Your task to perform on an android device: toggle sleep mode Image 0: 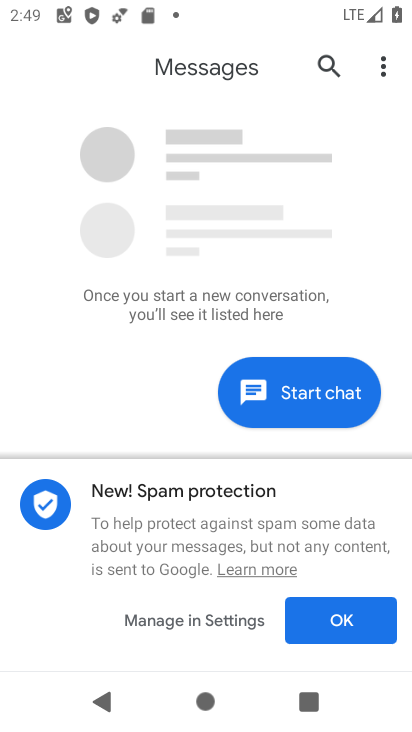
Step 0: press home button
Your task to perform on an android device: toggle sleep mode Image 1: 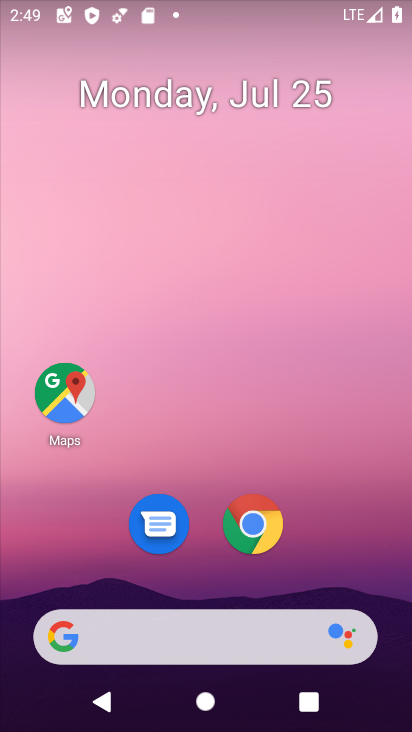
Step 1: drag from (334, 565) to (311, 16)
Your task to perform on an android device: toggle sleep mode Image 2: 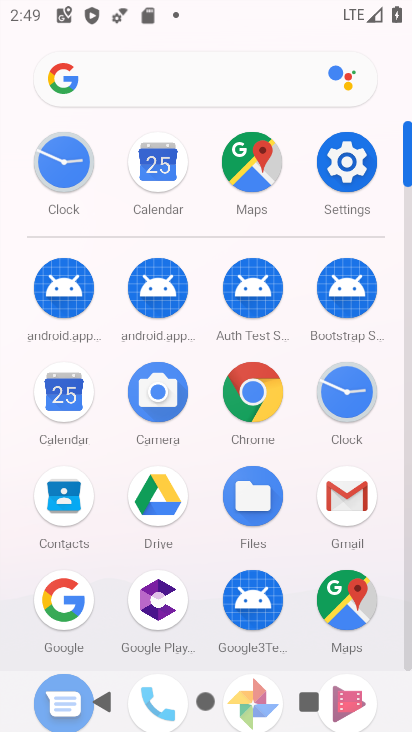
Step 2: click (351, 163)
Your task to perform on an android device: toggle sleep mode Image 3: 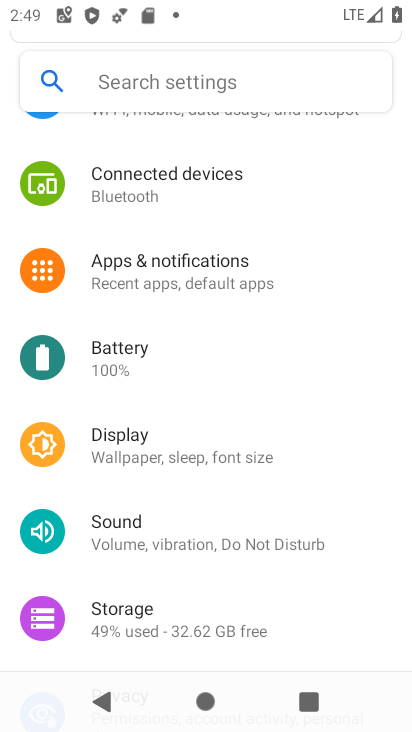
Step 3: click (174, 444)
Your task to perform on an android device: toggle sleep mode Image 4: 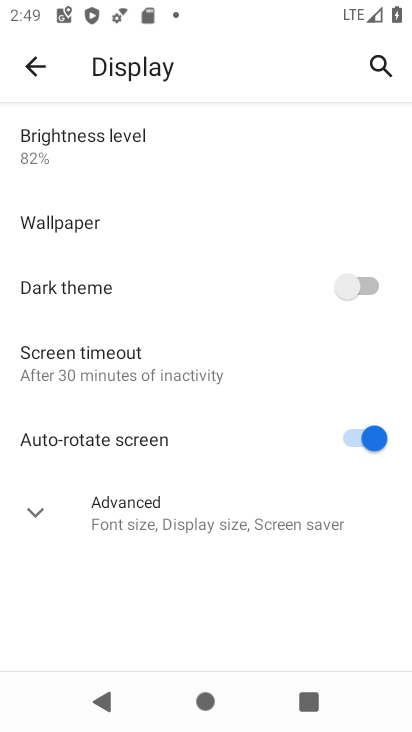
Step 4: click (32, 504)
Your task to perform on an android device: toggle sleep mode Image 5: 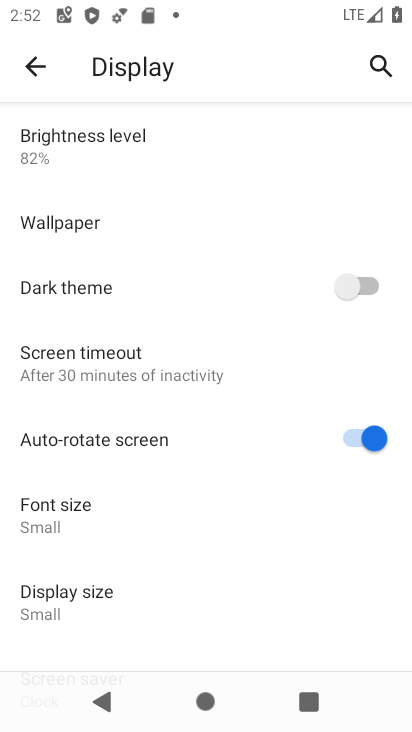
Step 5: task complete